Your task to perform on an android device: Go to Reddit.com Image 0: 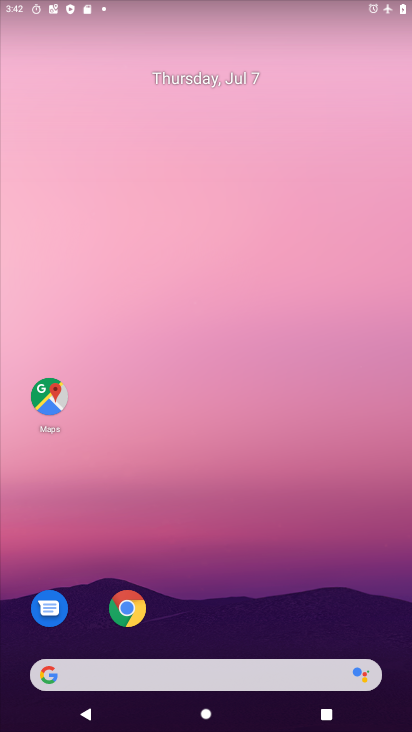
Step 0: click (122, 610)
Your task to perform on an android device: Go to Reddit.com Image 1: 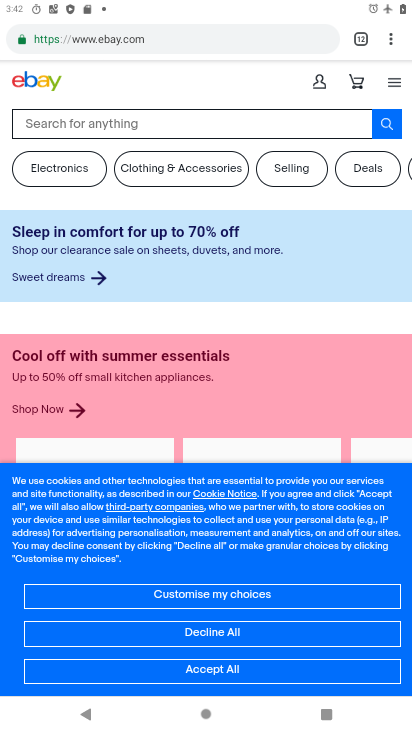
Step 1: click (390, 38)
Your task to perform on an android device: Go to Reddit.com Image 2: 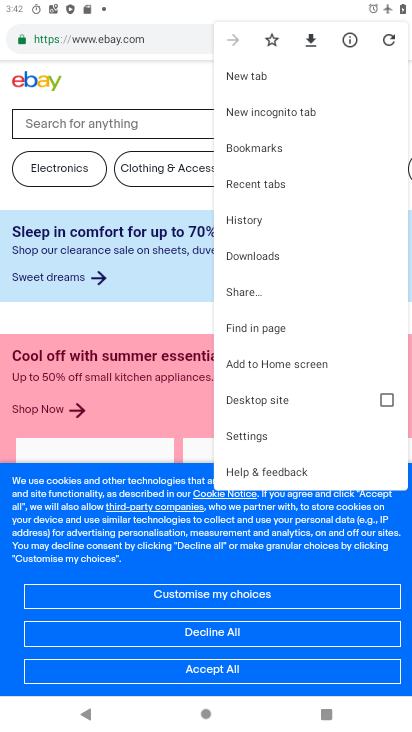
Step 2: click (243, 70)
Your task to perform on an android device: Go to Reddit.com Image 3: 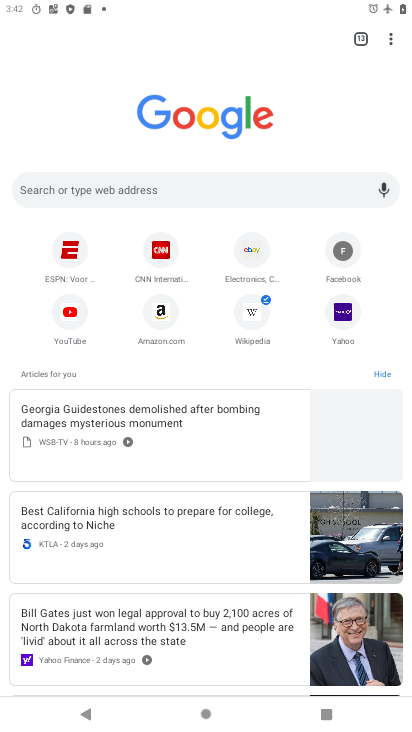
Step 3: click (249, 190)
Your task to perform on an android device: Go to Reddit.com Image 4: 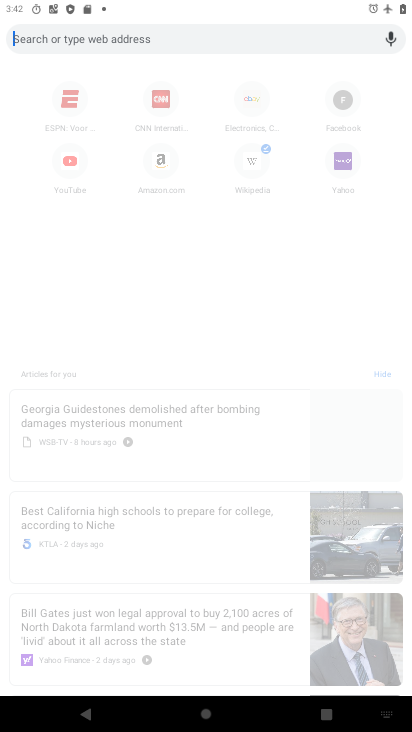
Step 4: type "Reddit.com"
Your task to perform on an android device: Go to Reddit.com Image 5: 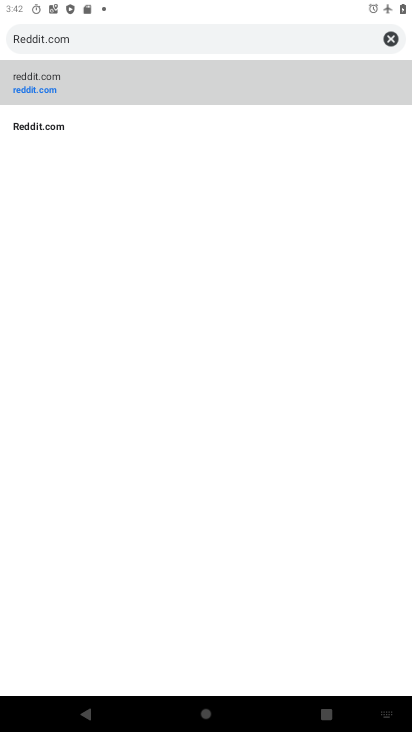
Step 5: click (39, 74)
Your task to perform on an android device: Go to Reddit.com Image 6: 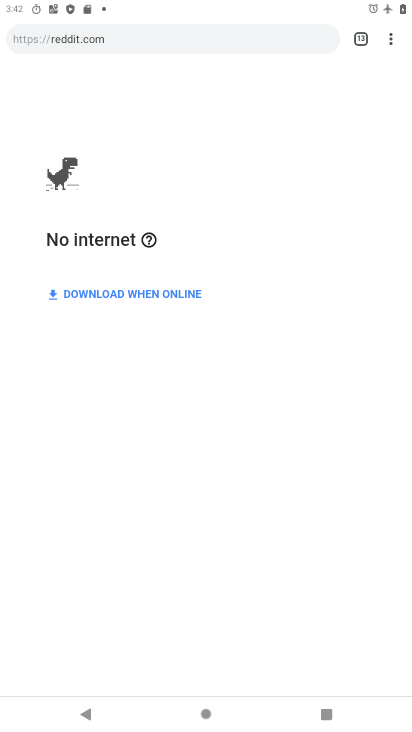
Step 6: task complete